Your task to perform on an android device: turn off sleep mode Image 0: 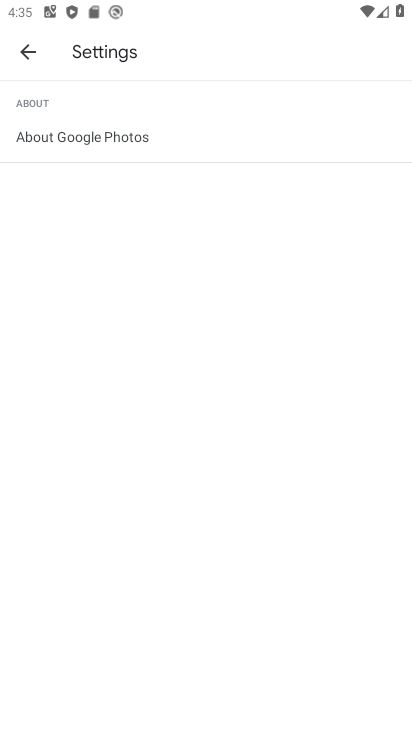
Step 0: press home button
Your task to perform on an android device: turn off sleep mode Image 1: 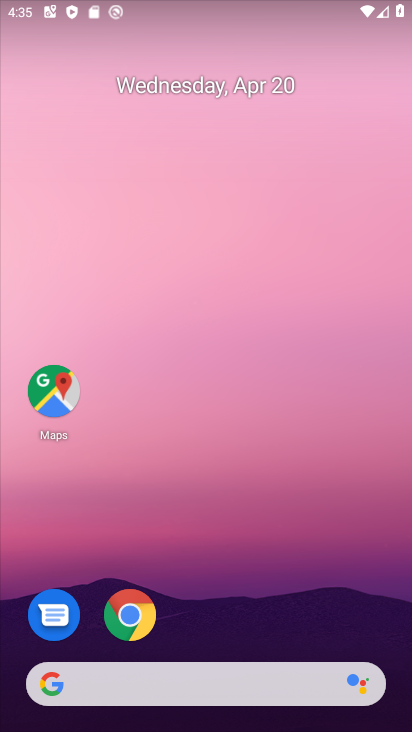
Step 1: drag from (224, 608) to (304, 24)
Your task to perform on an android device: turn off sleep mode Image 2: 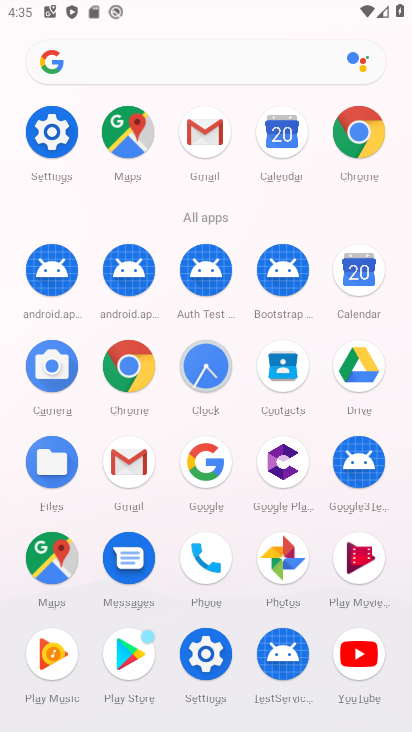
Step 2: click (61, 196)
Your task to perform on an android device: turn off sleep mode Image 3: 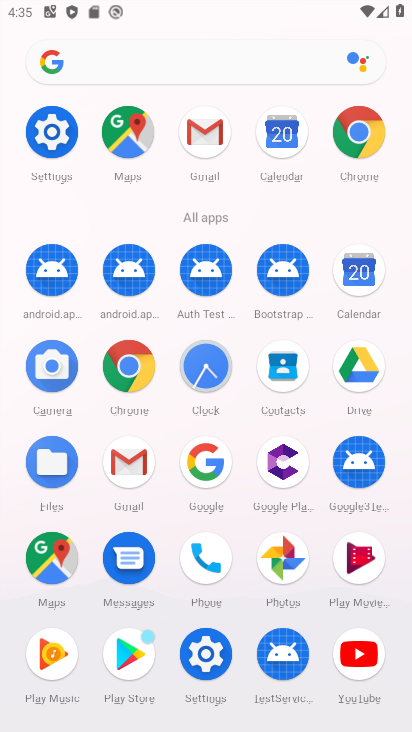
Step 3: click (52, 140)
Your task to perform on an android device: turn off sleep mode Image 4: 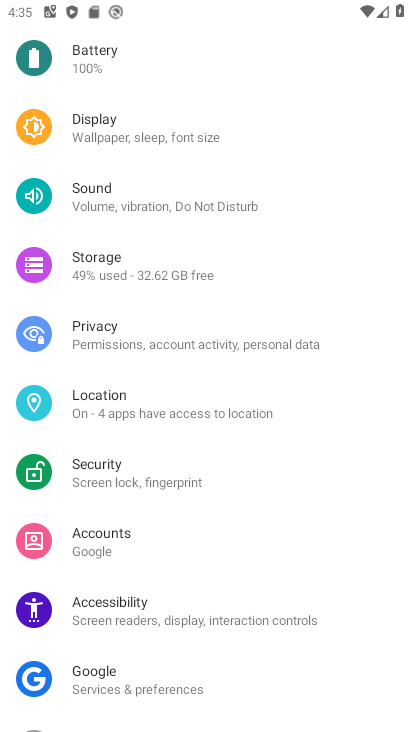
Step 4: drag from (196, 208) to (158, 668)
Your task to perform on an android device: turn off sleep mode Image 5: 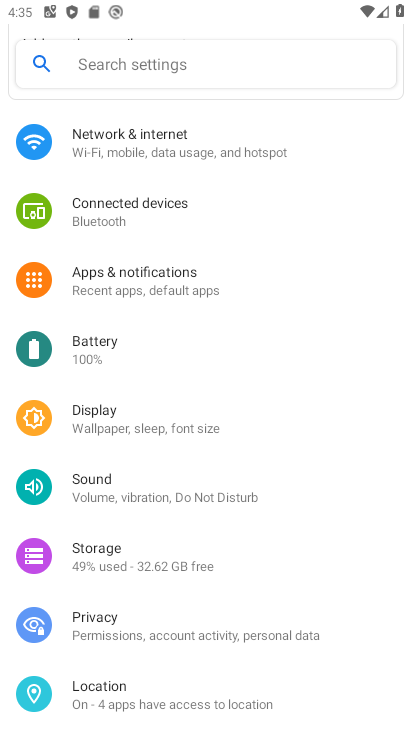
Step 5: click (188, 46)
Your task to perform on an android device: turn off sleep mode Image 6: 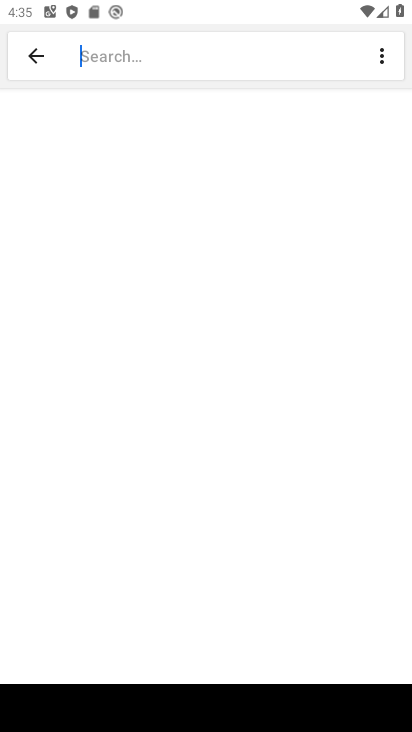
Step 6: type "sleep mode"
Your task to perform on an android device: turn off sleep mode Image 7: 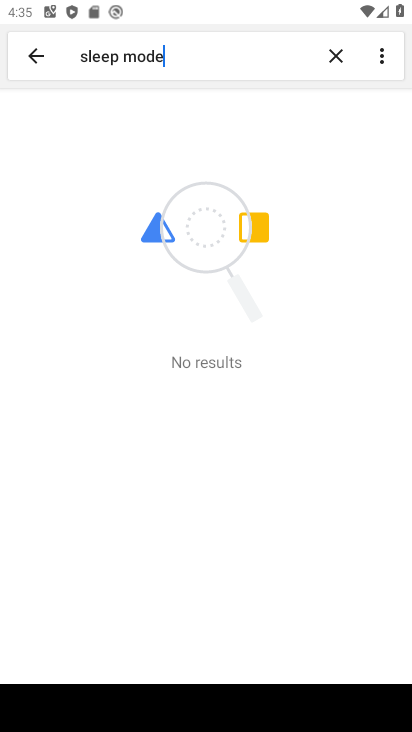
Step 7: task complete